Your task to perform on an android device: remove spam from my inbox in the gmail app Image 0: 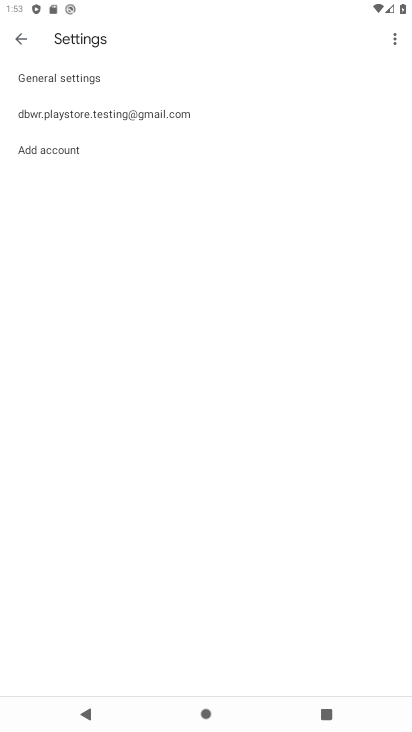
Step 0: click (8, 33)
Your task to perform on an android device: remove spam from my inbox in the gmail app Image 1: 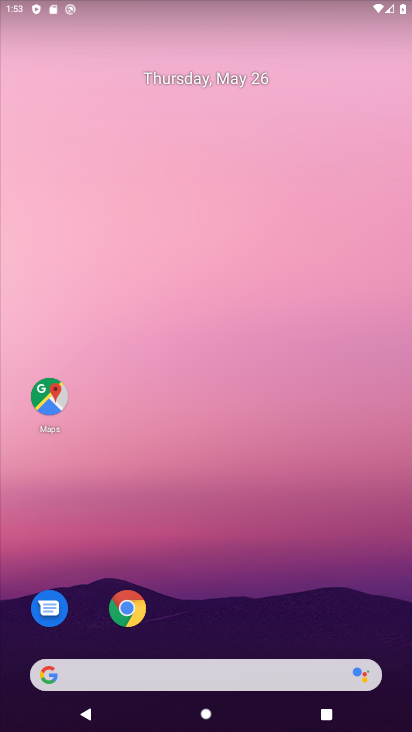
Step 1: drag from (239, 652) to (291, 84)
Your task to perform on an android device: remove spam from my inbox in the gmail app Image 2: 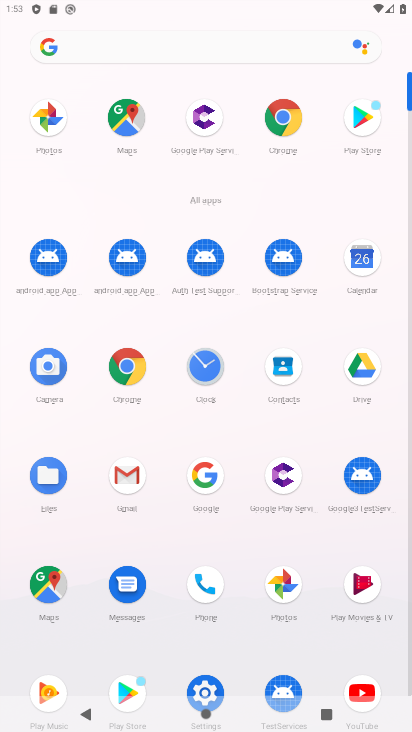
Step 2: click (137, 476)
Your task to perform on an android device: remove spam from my inbox in the gmail app Image 3: 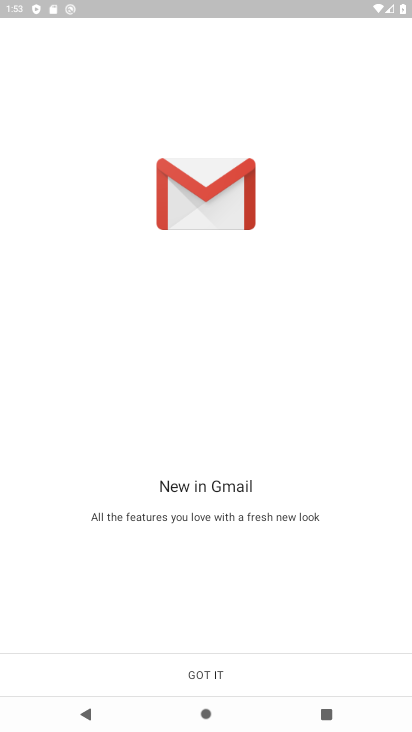
Step 3: click (185, 668)
Your task to perform on an android device: remove spam from my inbox in the gmail app Image 4: 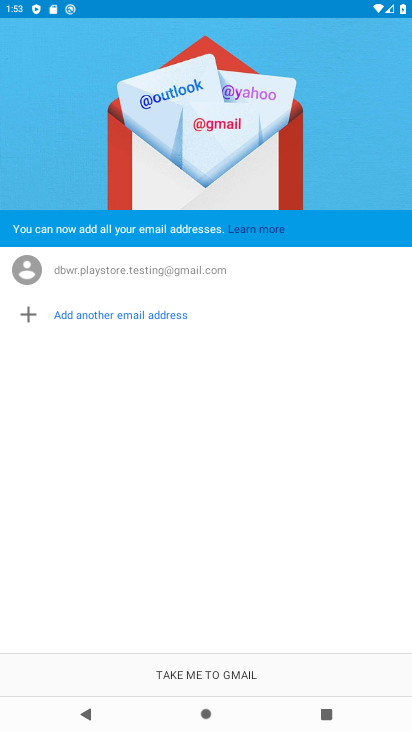
Step 4: click (185, 669)
Your task to perform on an android device: remove spam from my inbox in the gmail app Image 5: 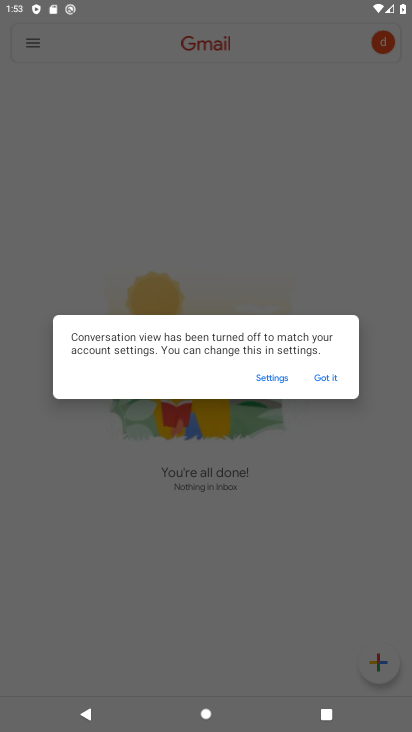
Step 5: click (332, 386)
Your task to perform on an android device: remove spam from my inbox in the gmail app Image 6: 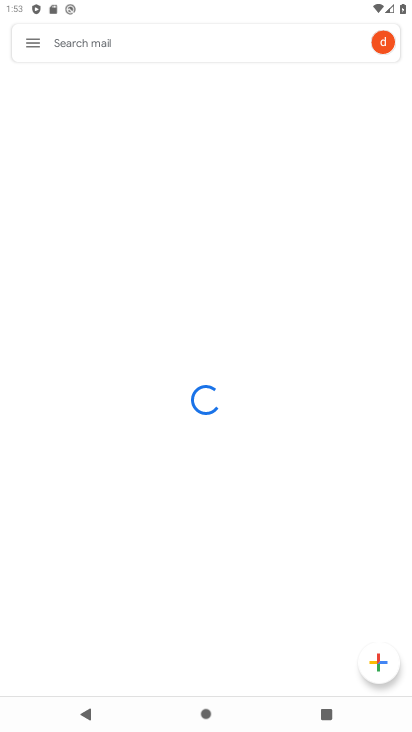
Step 6: click (30, 36)
Your task to perform on an android device: remove spam from my inbox in the gmail app Image 7: 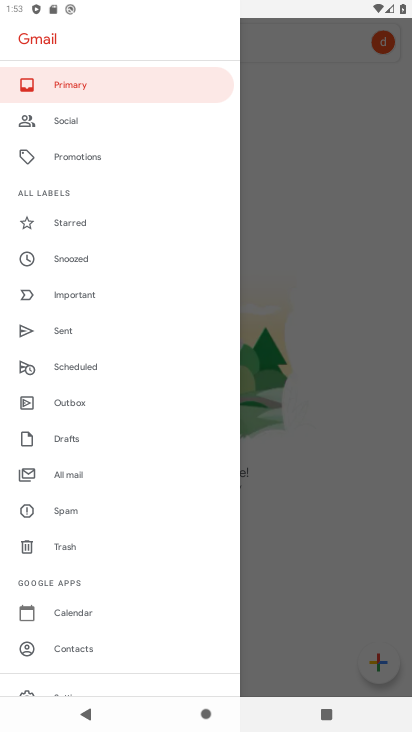
Step 7: click (49, 510)
Your task to perform on an android device: remove spam from my inbox in the gmail app Image 8: 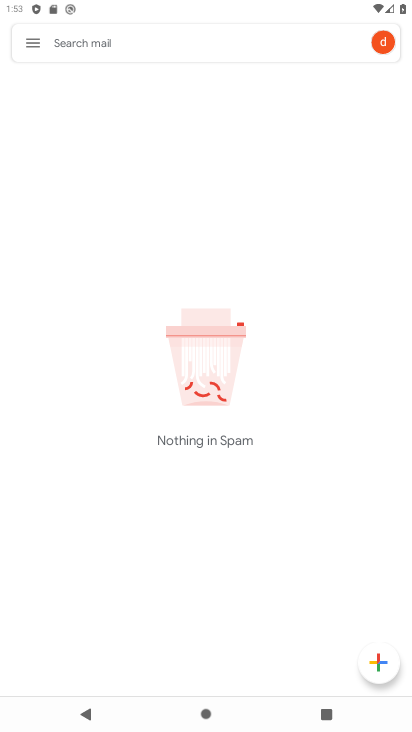
Step 8: task complete